Your task to perform on an android device: Open calendar and show me the first week of next month Image 0: 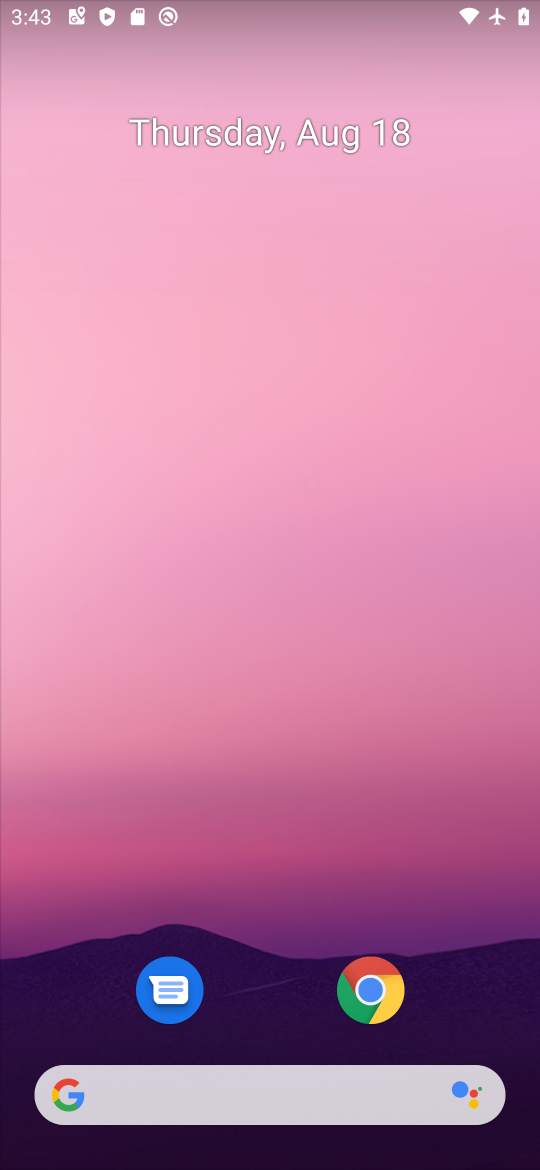
Step 0: drag from (292, 936) to (389, 167)
Your task to perform on an android device: Open calendar and show me the first week of next month Image 1: 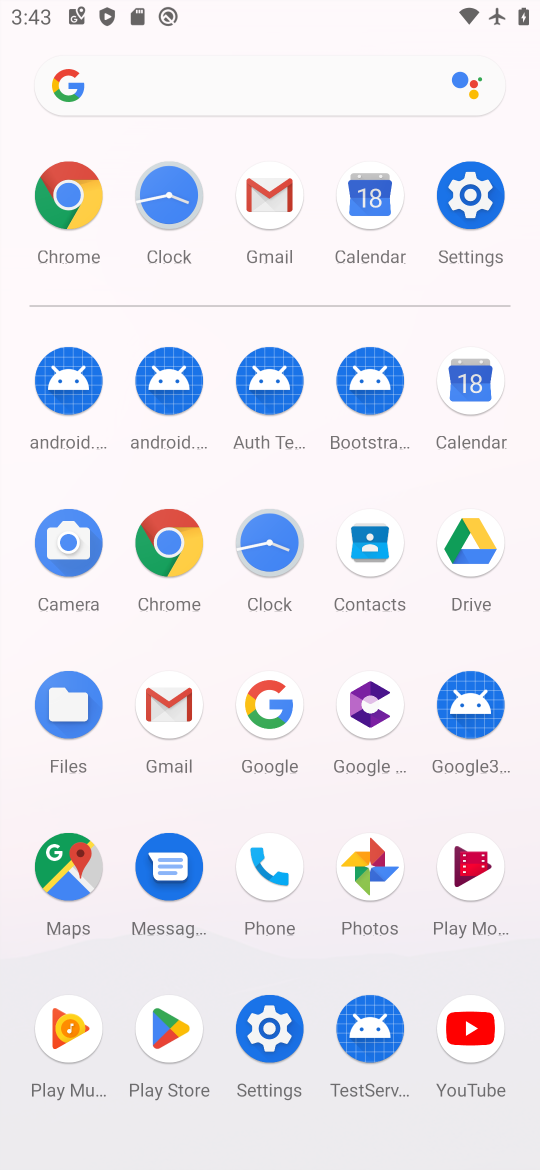
Step 1: click (466, 386)
Your task to perform on an android device: Open calendar and show me the first week of next month Image 2: 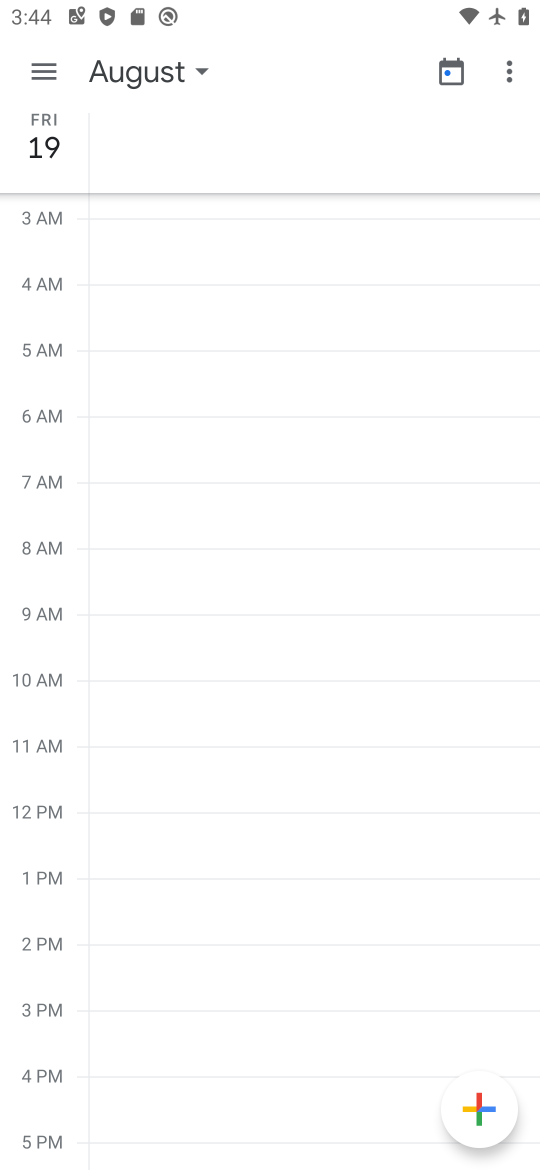
Step 2: click (122, 64)
Your task to perform on an android device: Open calendar and show me the first week of next month Image 3: 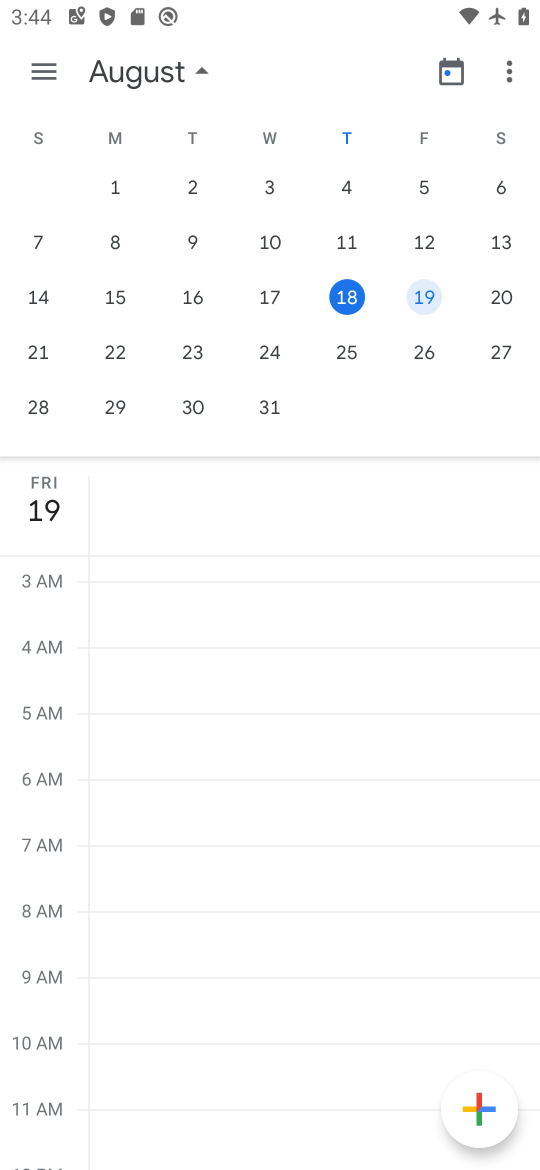
Step 3: drag from (503, 319) to (201, 301)
Your task to perform on an android device: Open calendar and show me the first week of next month Image 4: 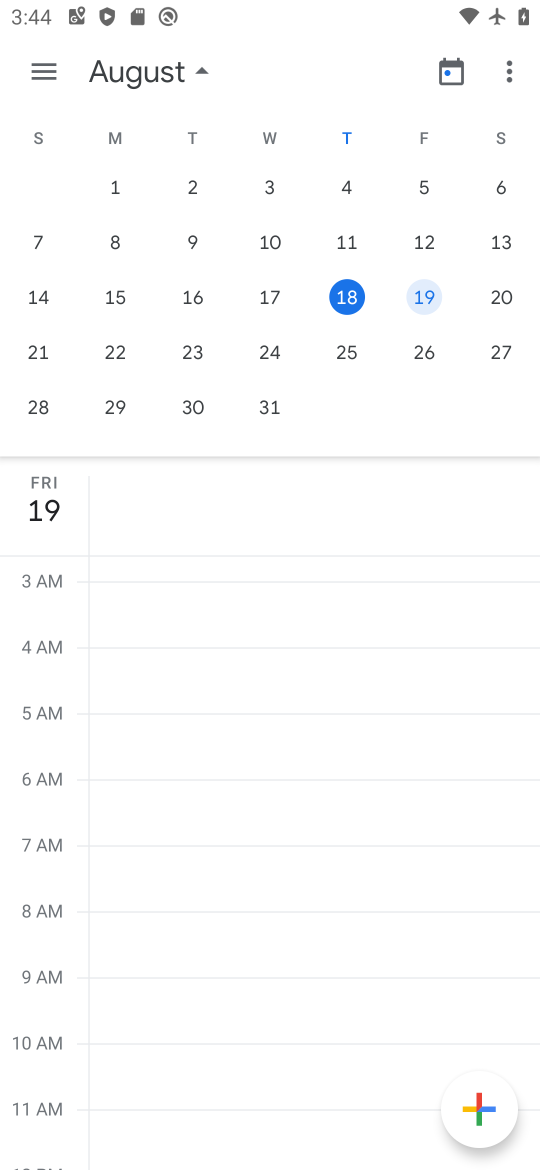
Step 4: click (54, 68)
Your task to perform on an android device: Open calendar and show me the first week of next month Image 5: 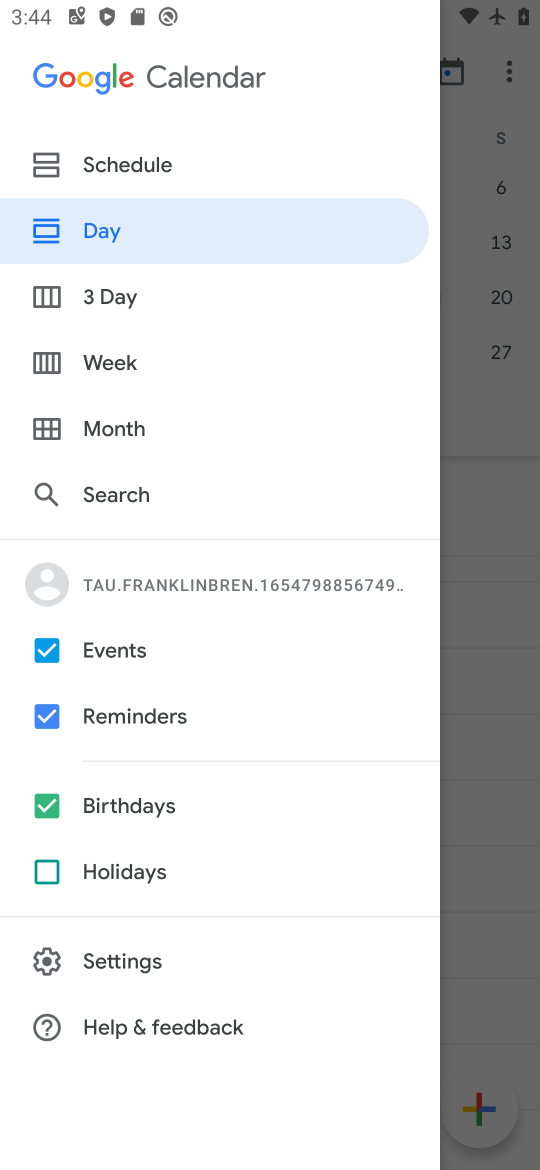
Step 5: click (134, 359)
Your task to perform on an android device: Open calendar and show me the first week of next month Image 6: 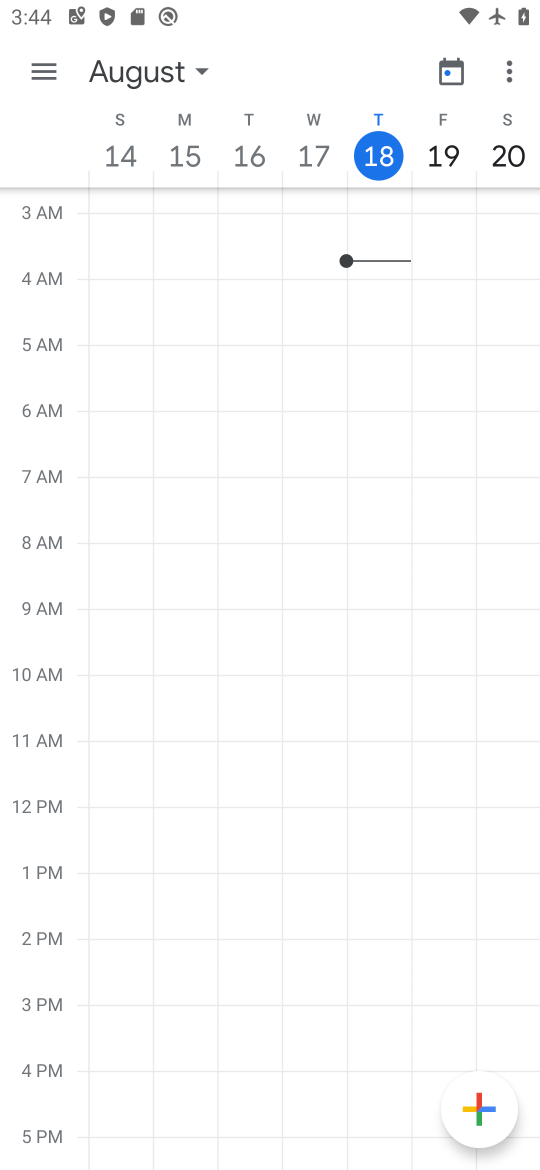
Step 6: click (154, 63)
Your task to perform on an android device: Open calendar and show me the first week of next month Image 7: 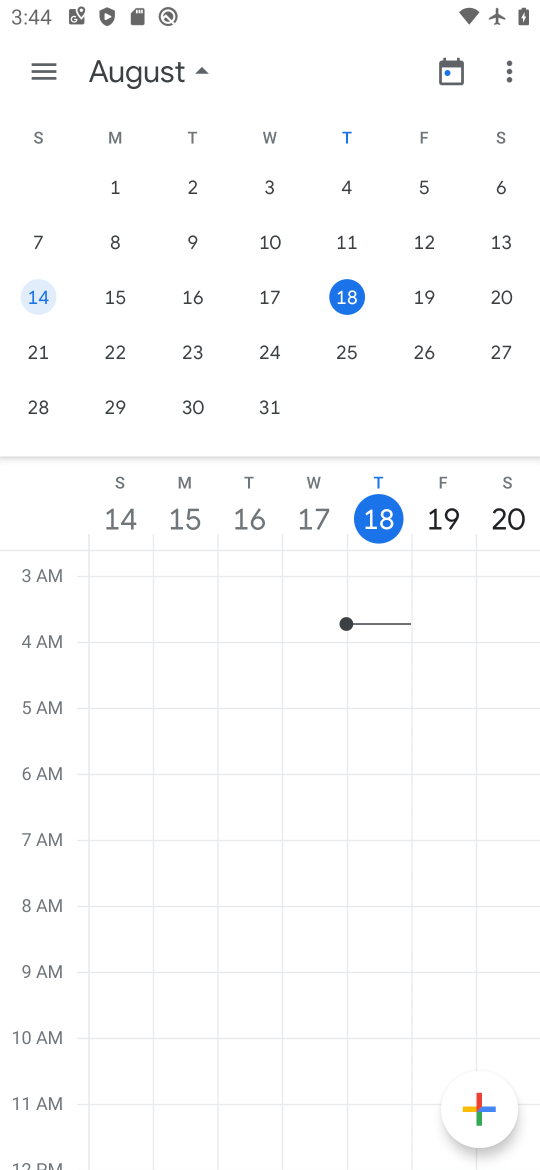
Step 7: drag from (493, 250) to (0, 241)
Your task to perform on an android device: Open calendar and show me the first week of next month Image 8: 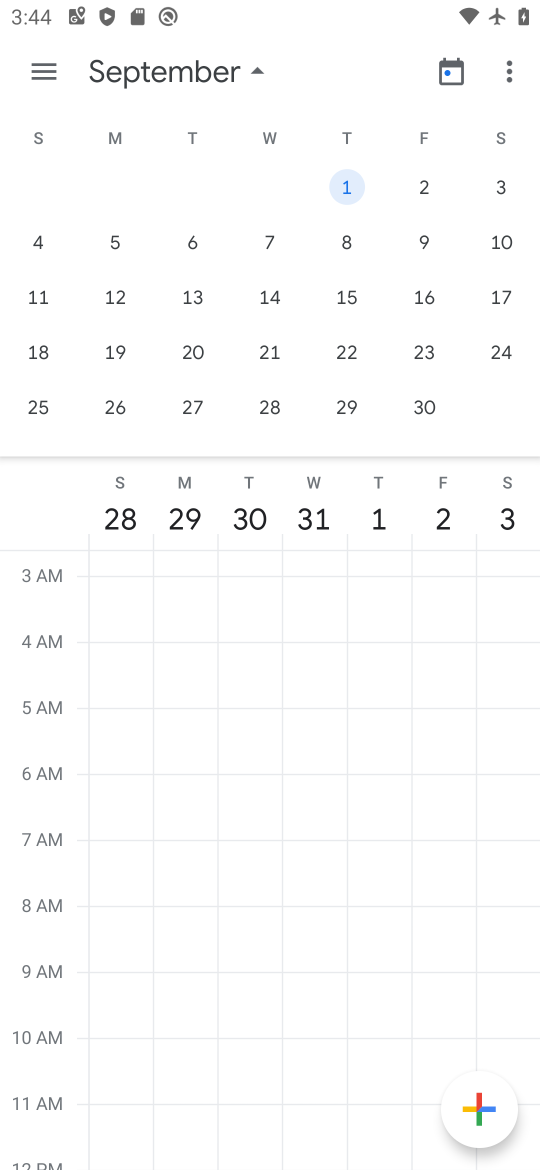
Step 8: click (136, 235)
Your task to perform on an android device: Open calendar and show me the first week of next month Image 9: 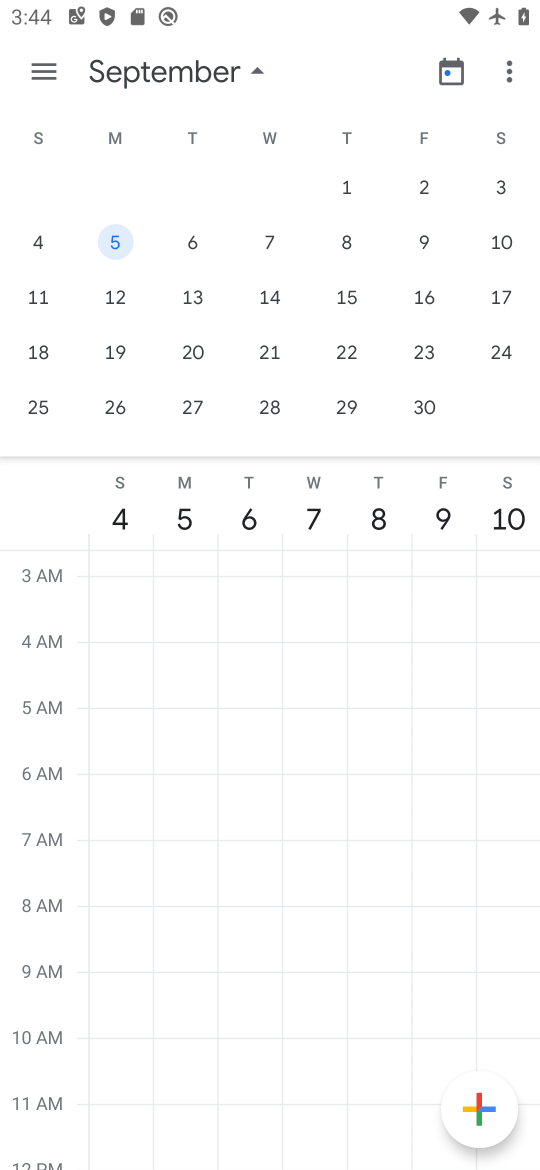
Step 9: task complete